Your task to perform on an android device: install app "Life360: Find Family & Friends" Image 0: 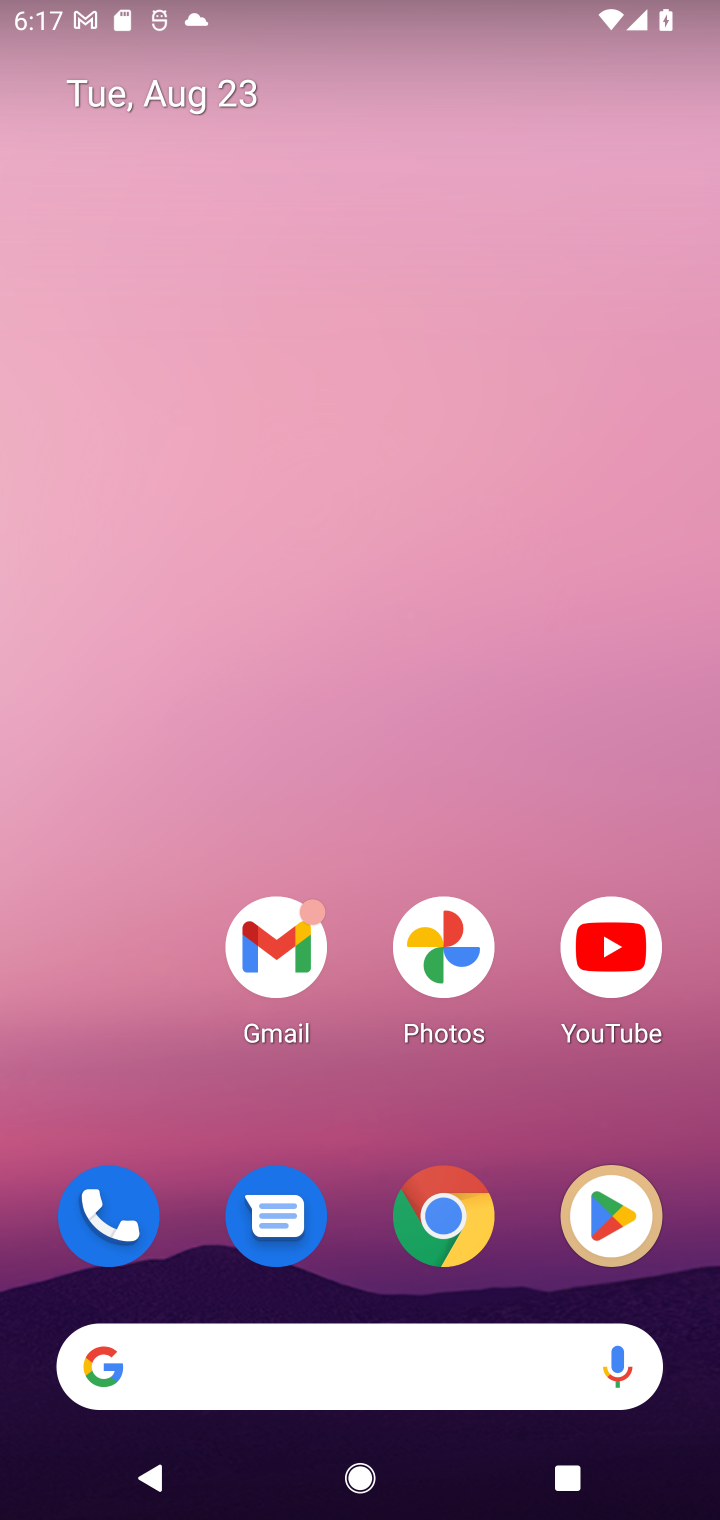
Step 0: drag from (386, 1321) to (213, 388)
Your task to perform on an android device: install app "Life360: Find Family & Friends" Image 1: 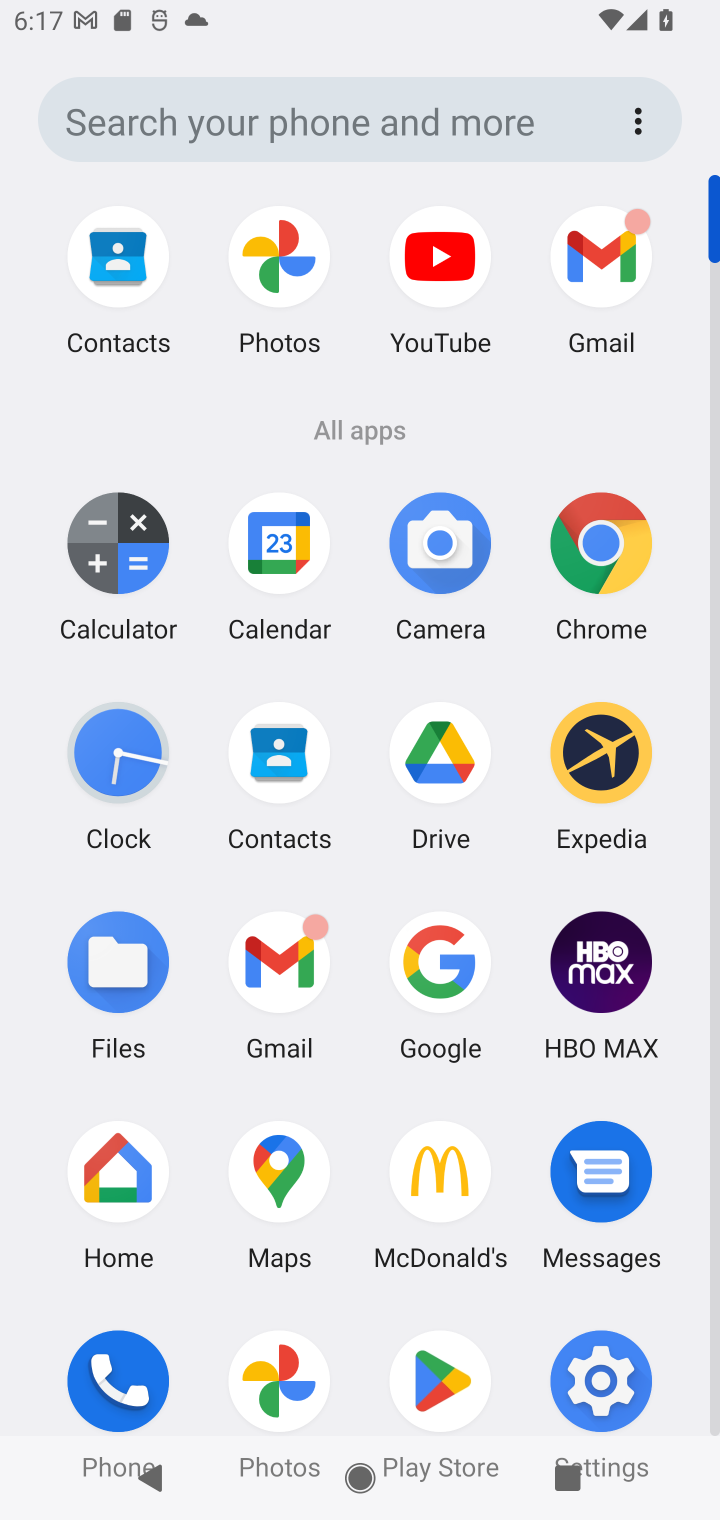
Step 1: click (448, 1397)
Your task to perform on an android device: install app "Life360: Find Family & Friends" Image 2: 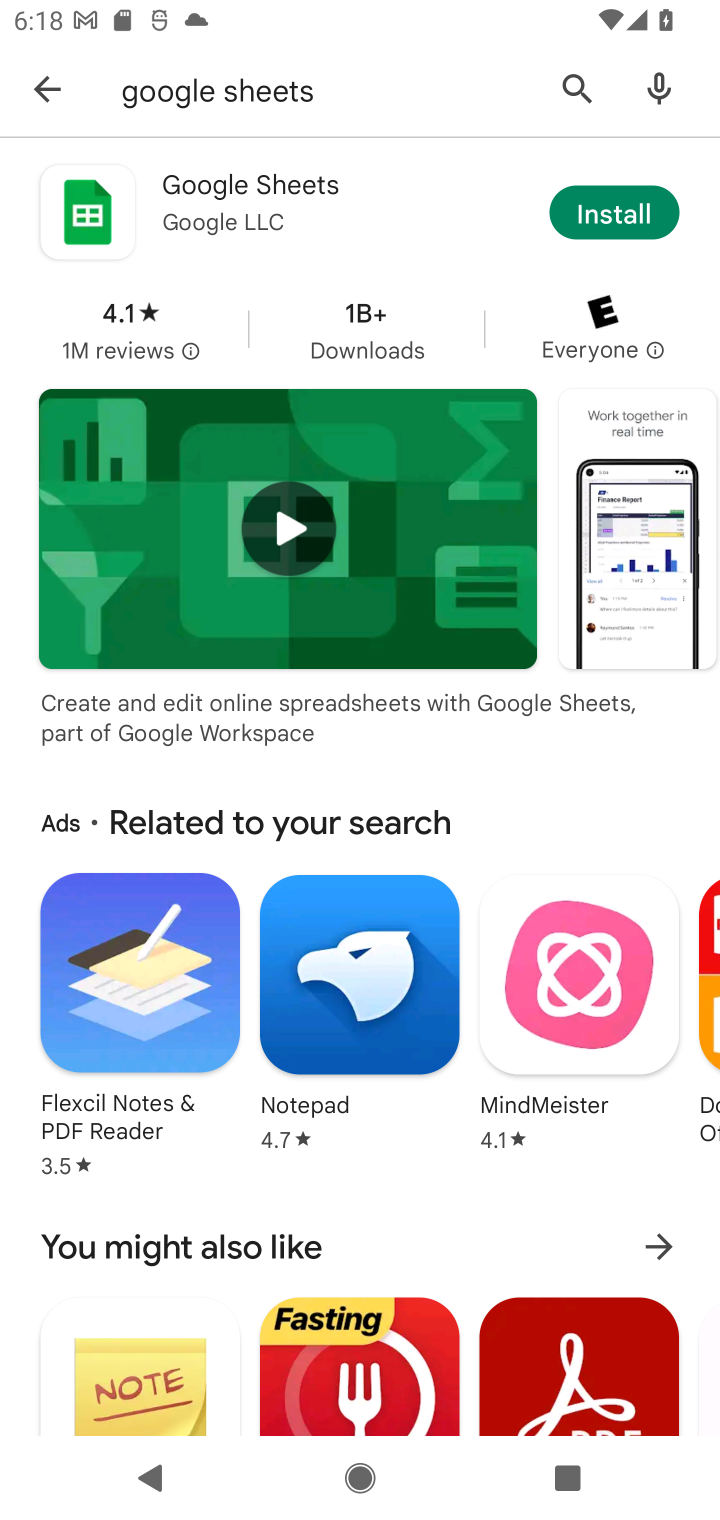
Step 2: click (558, 74)
Your task to perform on an android device: install app "Life360: Find Family & Friends" Image 3: 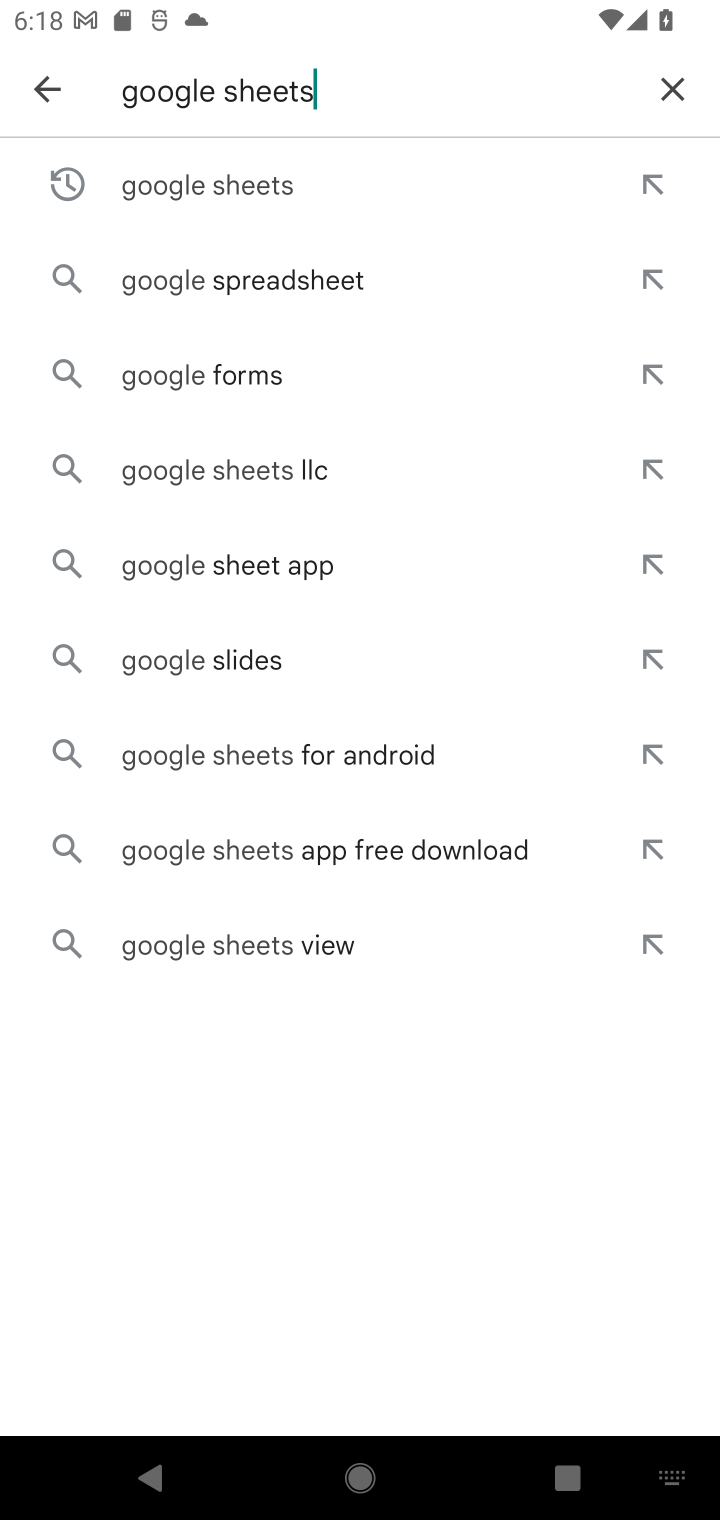
Step 3: click (676, 97)
Your task to perform on an android device: install app "Life360: Find Family & Friends" Image 4: 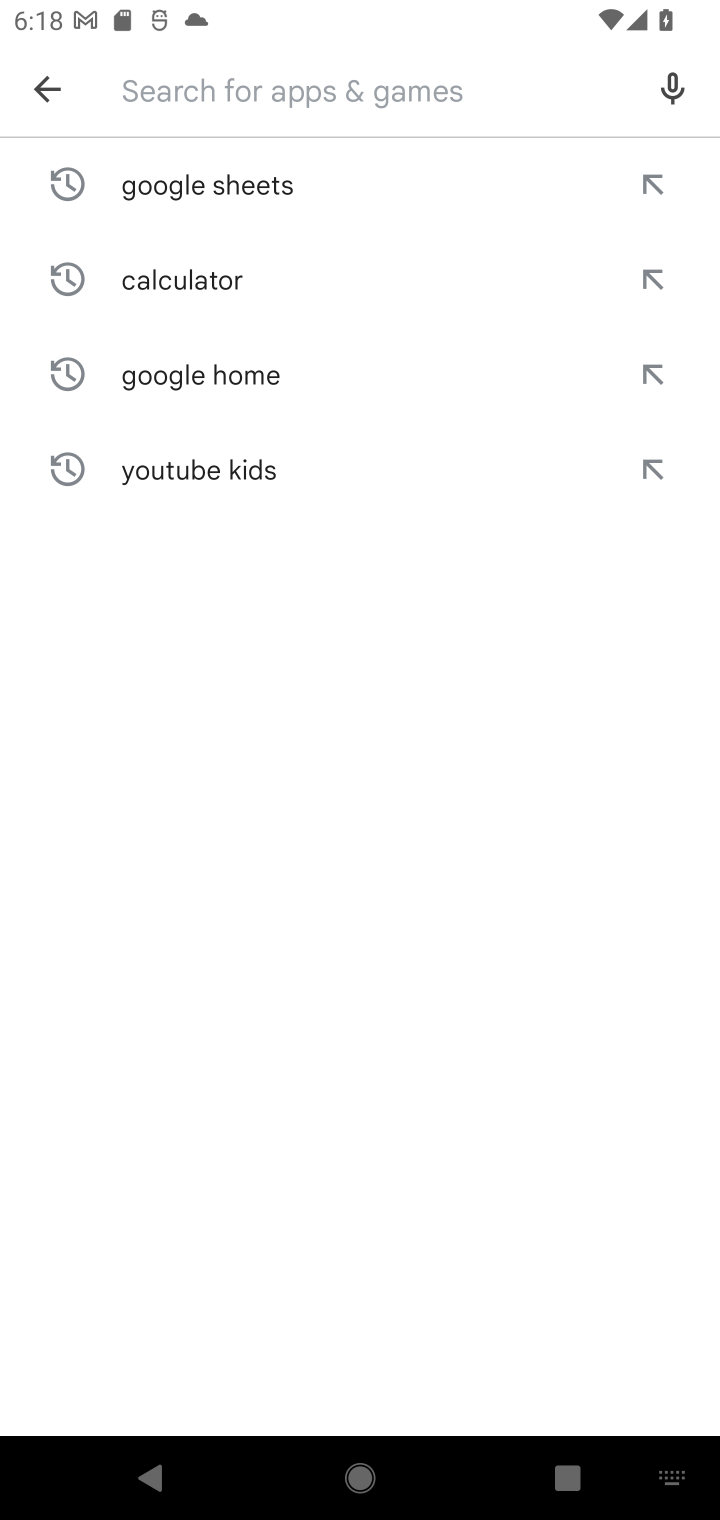
Step 4: type "Life360: Find Family & Friend"
Your task to perform on an android device: install app "Life360: Find Family & Friends" Image 5: 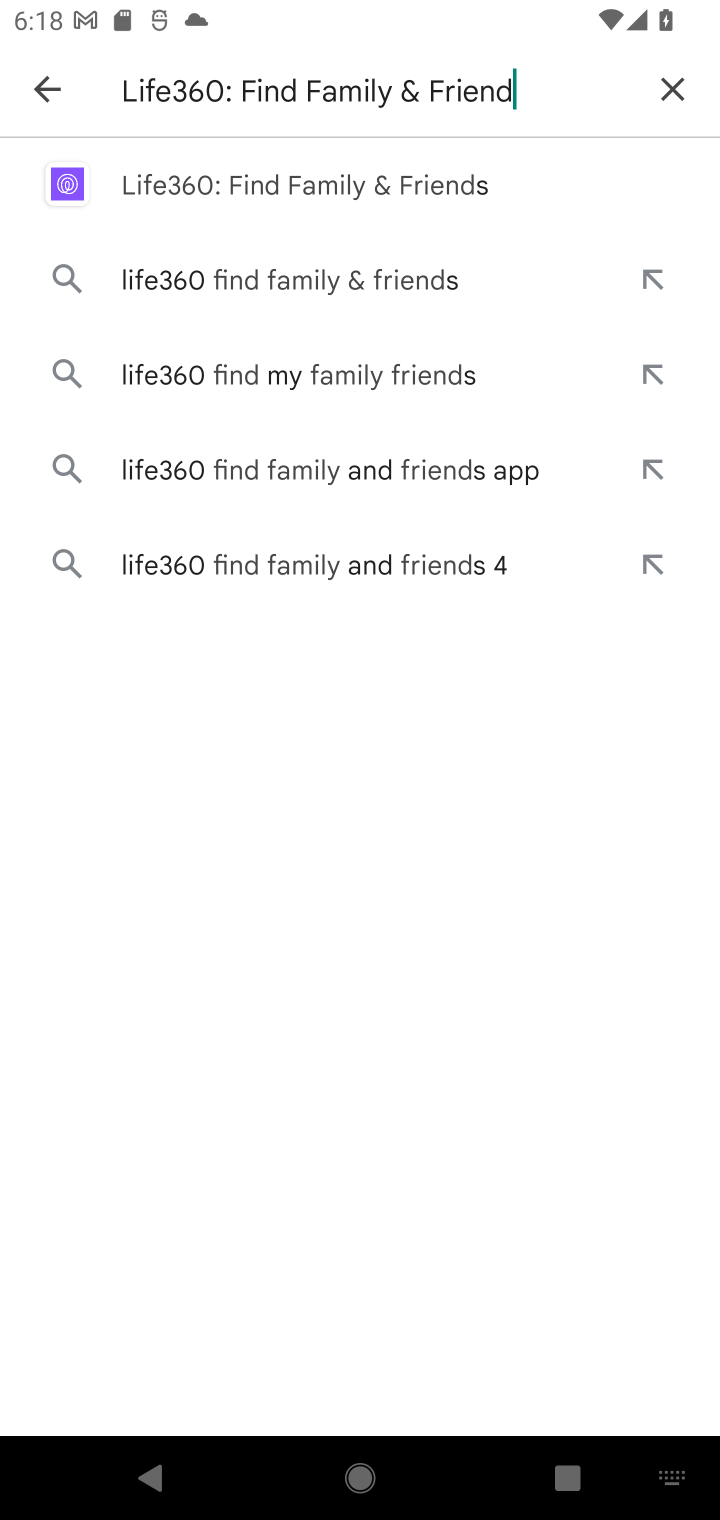
Step 5: click (241, 198)
Your task to perform on an android device: install app "Life360: Find Family & Friends" Image 6: 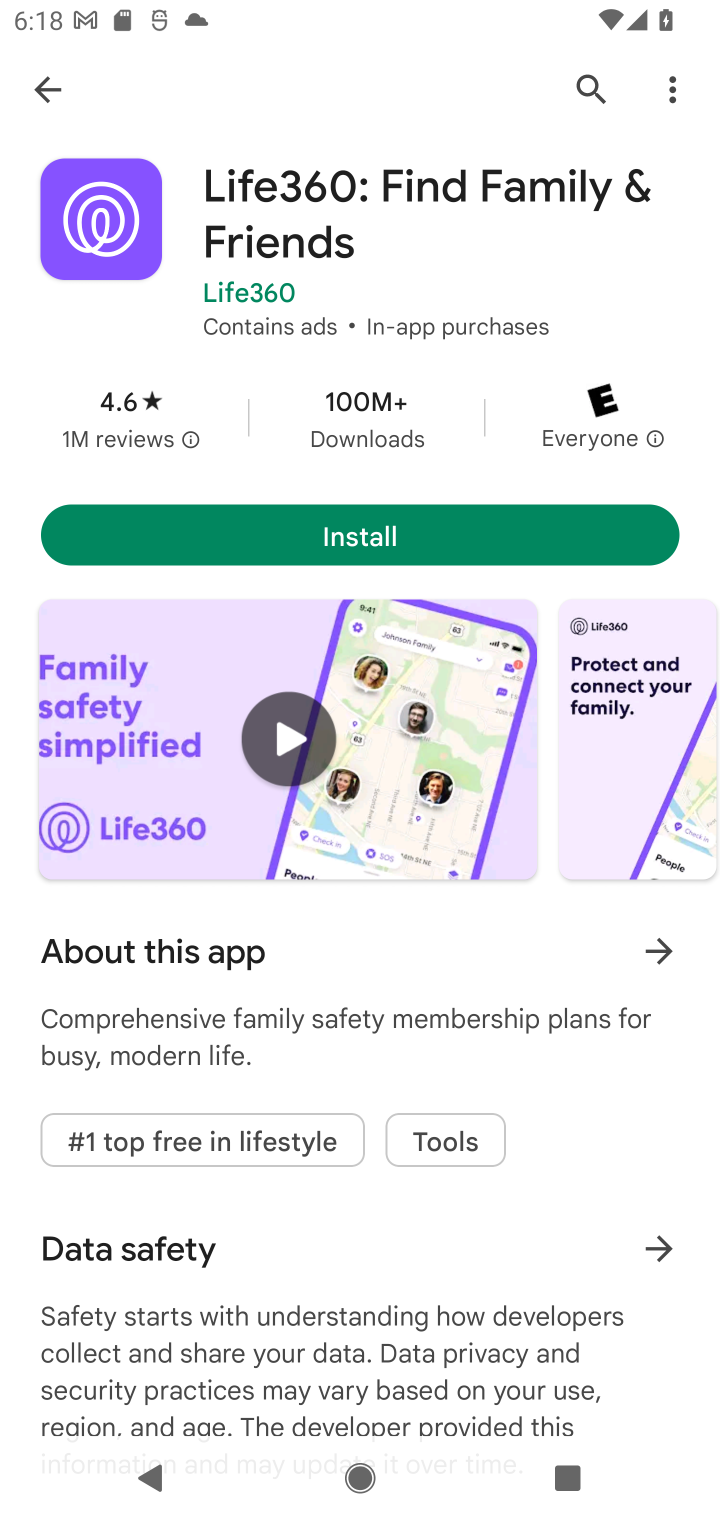
Step 6: click (269, 543)
Your task to perform on an android device: install app "Life360: Find Family & Friends" Image 7: 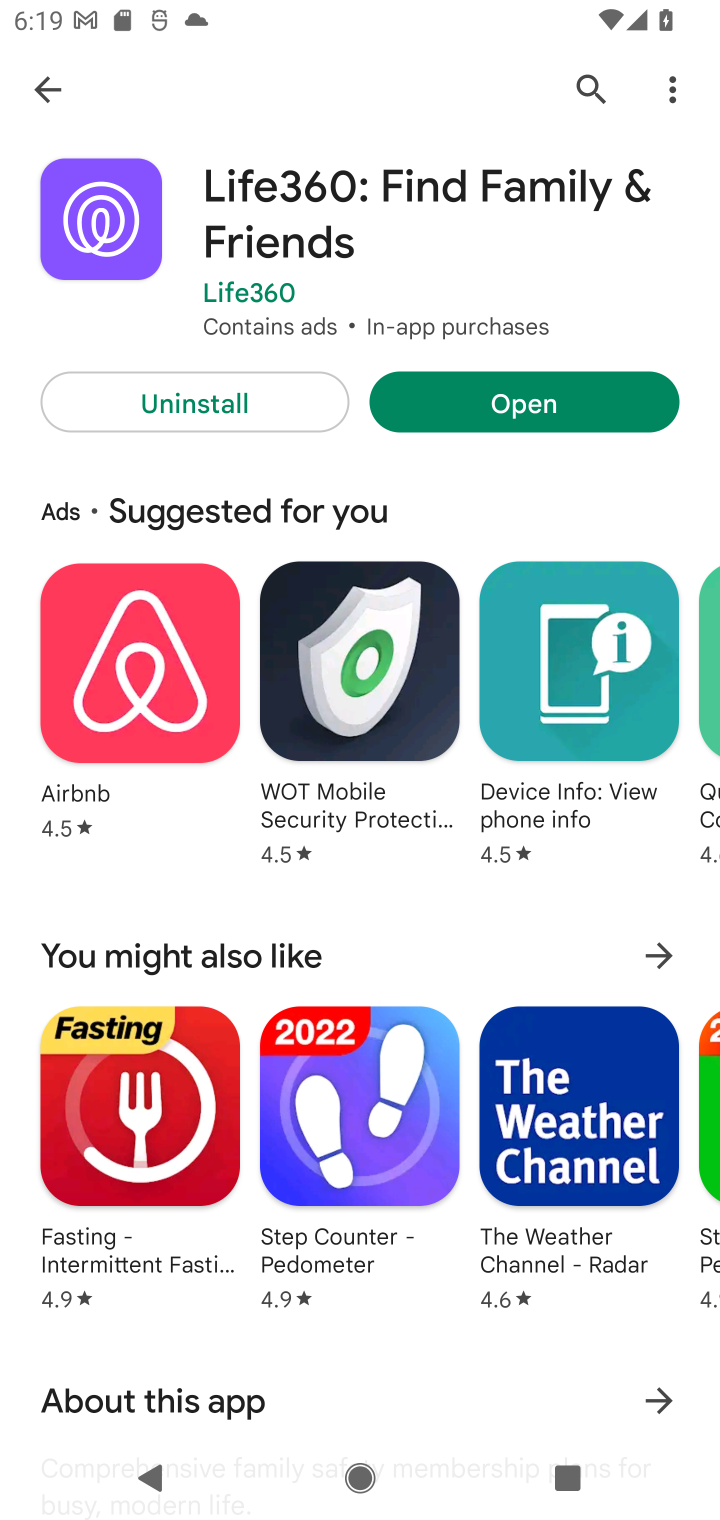
Step 7: click (551, 393)
Your task to perform on an android device: install app "Life360: Find Family & Friends" Image 8: 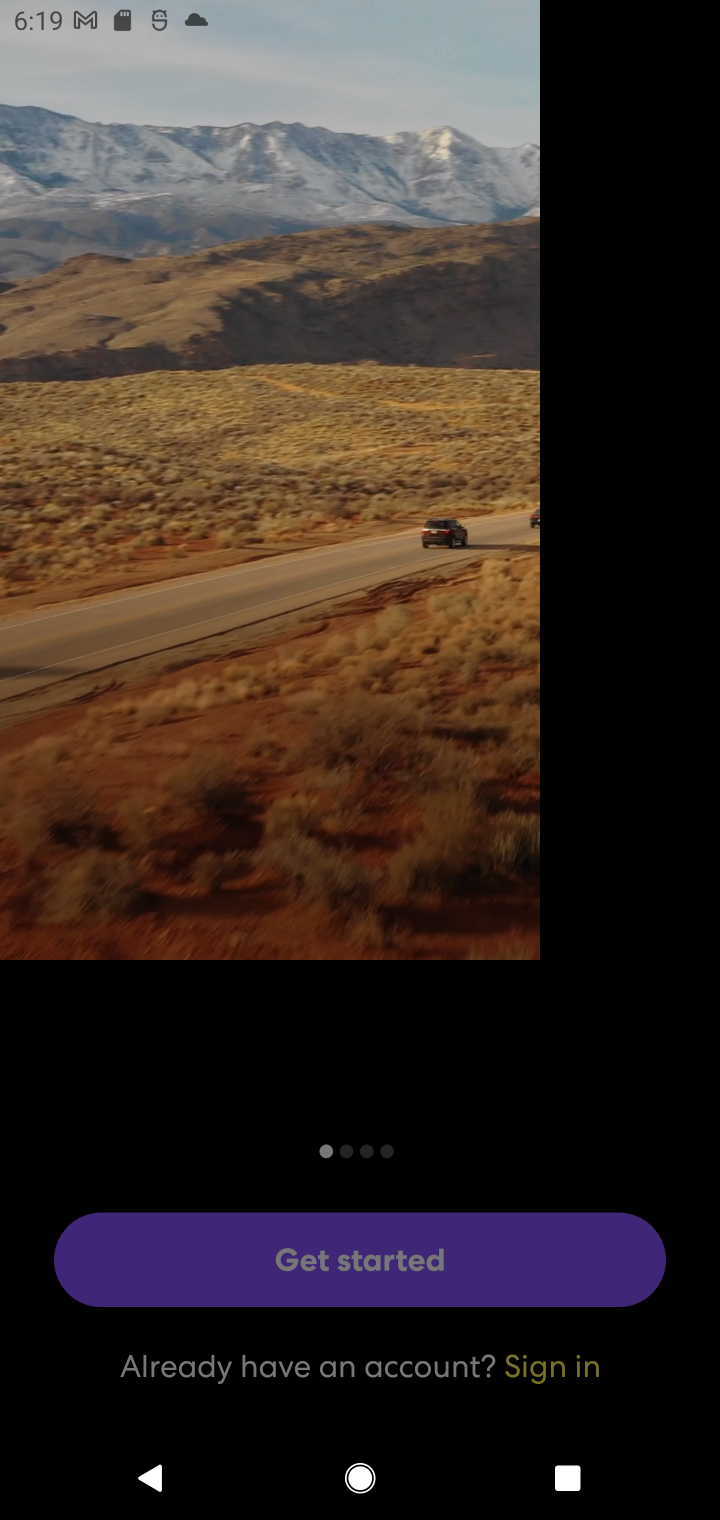
Step 8: task complete